Your task to perform on an android device: Go to Yahoo.com Image 0: 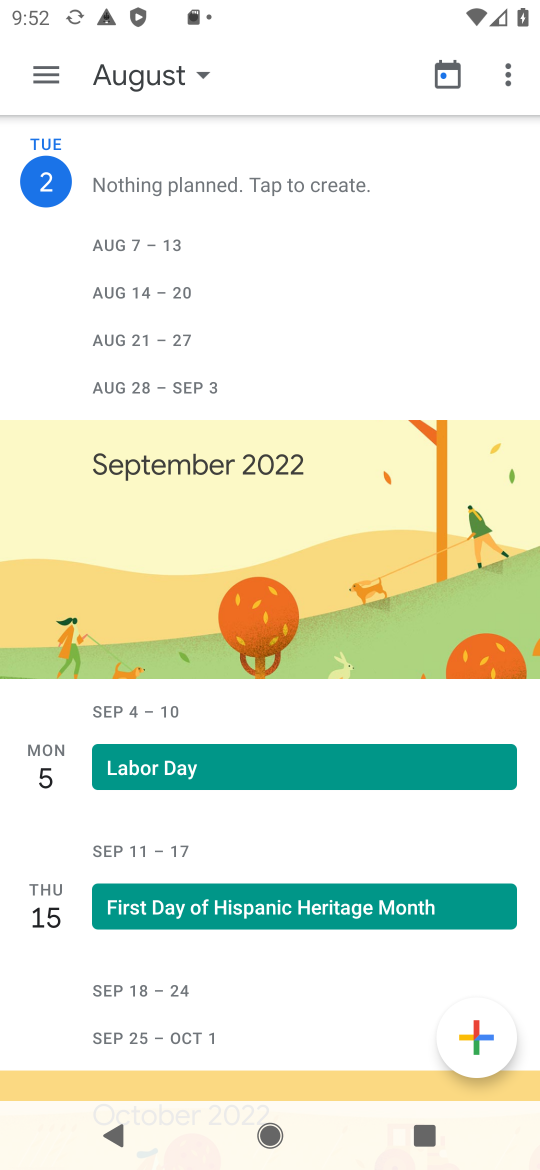
Step 0: press home button
Your task to perform on an android device: Go to Yahoo.com Image 1: 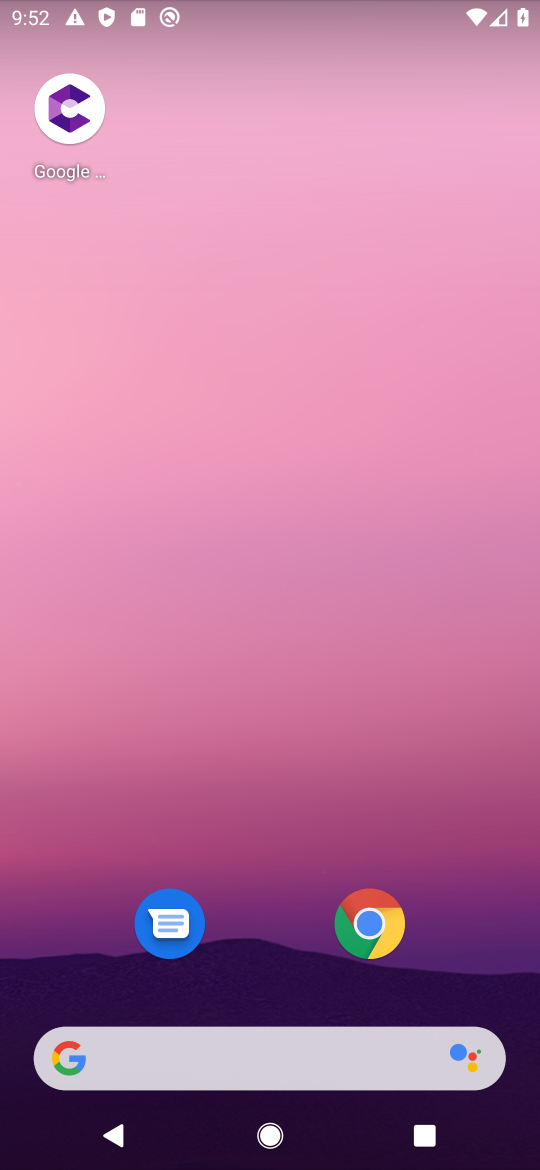
Step 1: click (69, 1056)
Your task to perform on an android device: Go to Yahoo.com Image 2: 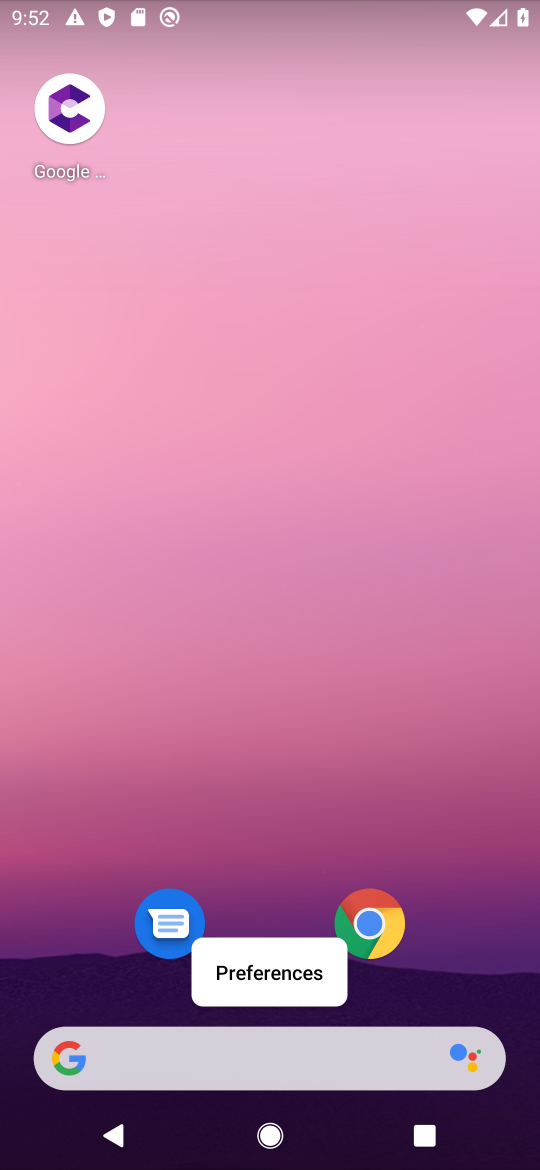
Step 2: click (69, 1054)
Your task to perform on an android device: Go to Yahoo.com Image 3: 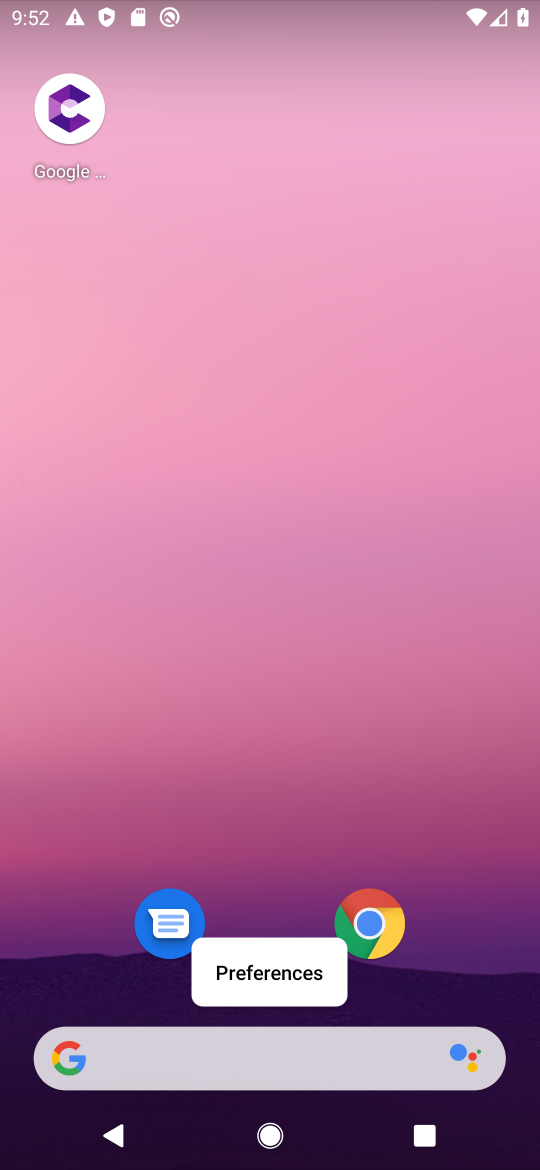
Step 3: click (67, 1049)
Your task to perform on an android device: Go to Yahoo.com Image 4: 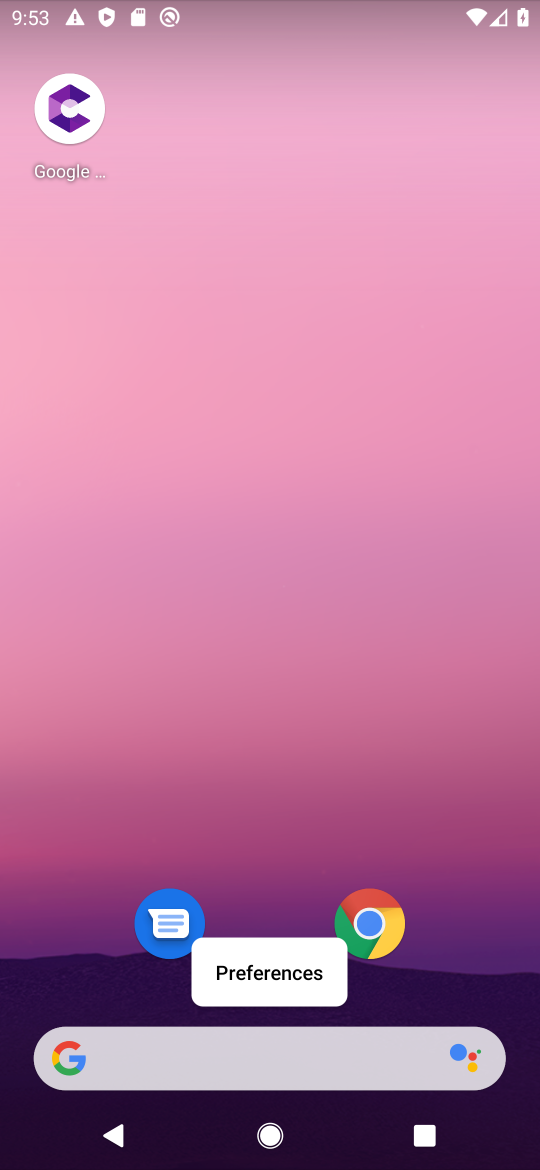
Step 4: click (71, 1056)
Your task to perform on an android device: Go to Yahoo.com Image 5: 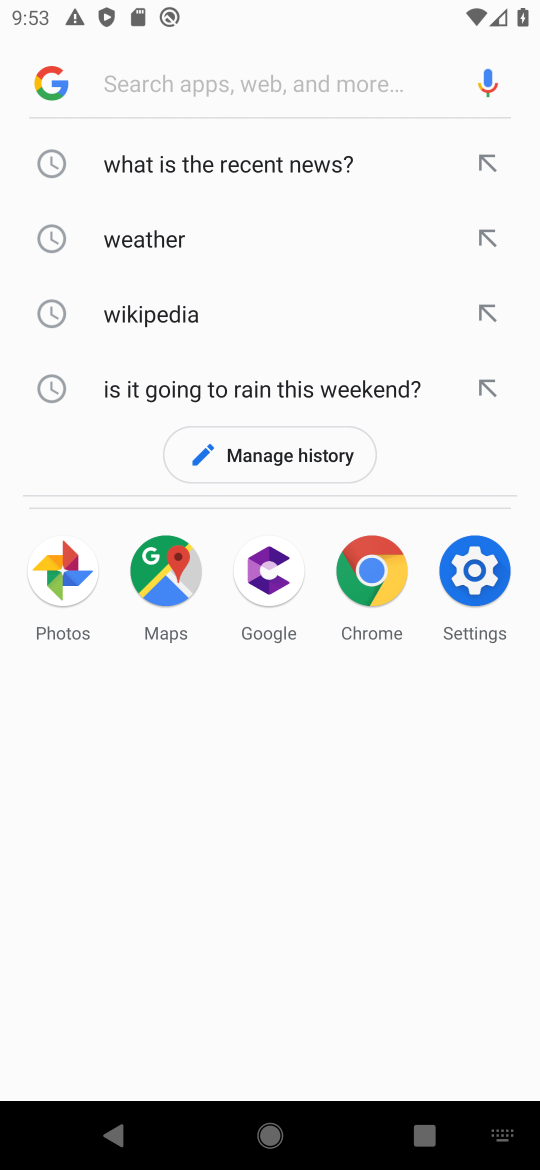
Step 5: type "Yahoo.com"
Your task to perform on an android device: Go to Yahoo.com Image 6: 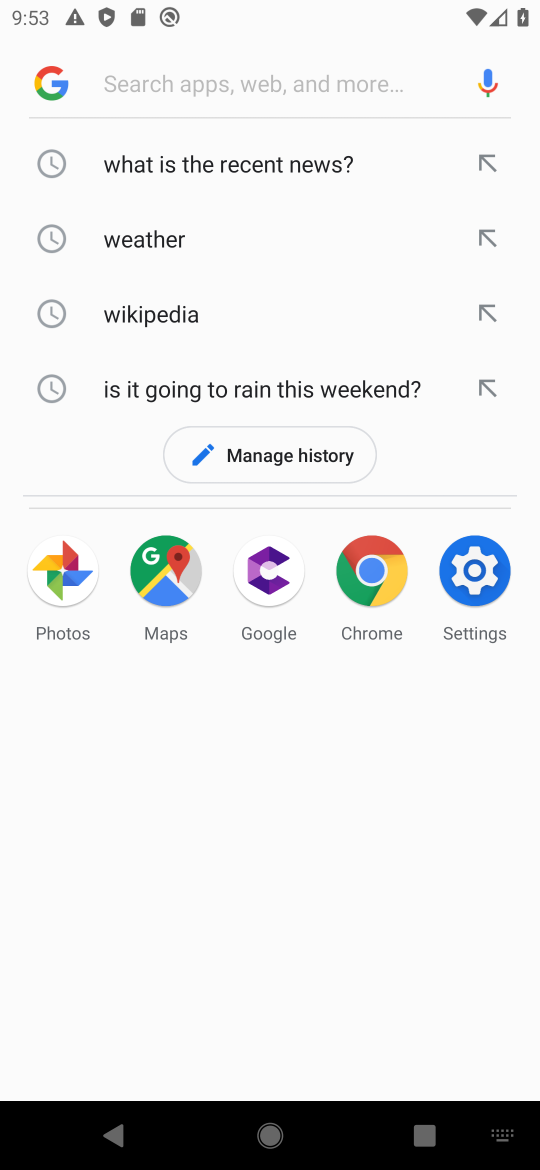
Step 6: click (193, 72)
Your task to perform on an android device: Go to Yahoo.com Image 7: 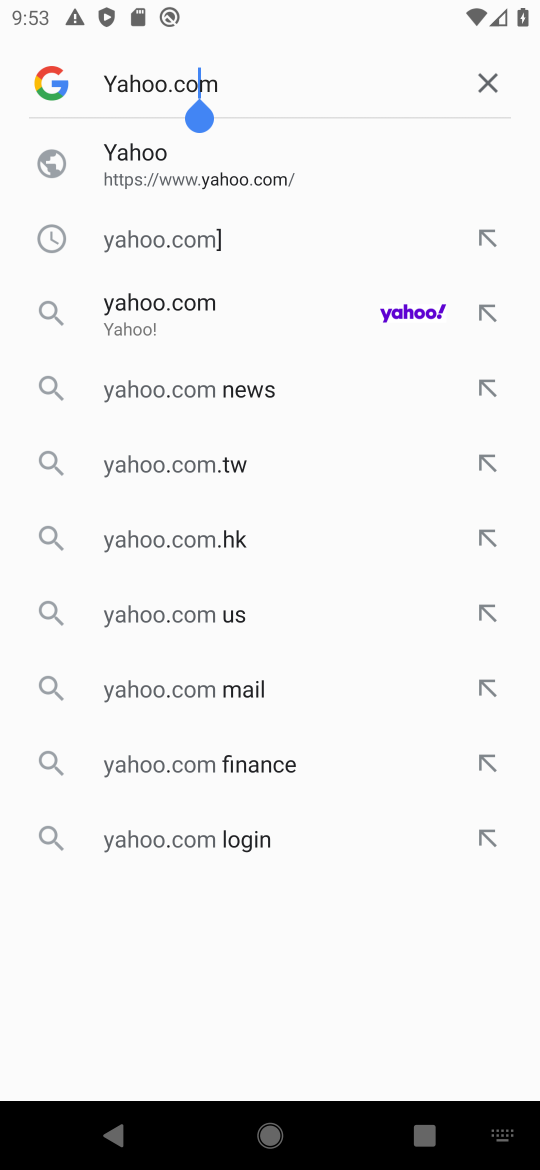
Step 7: click (129, 163)
Your task to perform on an android device: Go to Yahoo.com Image 8: 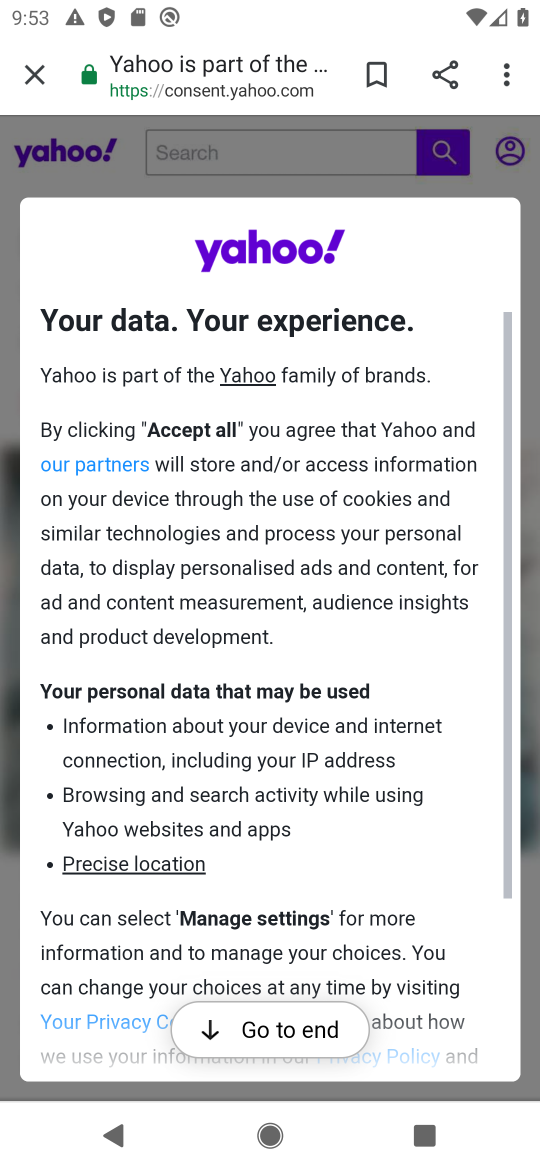
Step 8: drag from (417, 883) to (369, 368)
Your task to perform on an android device: Go to Yahoo.com Image 9: 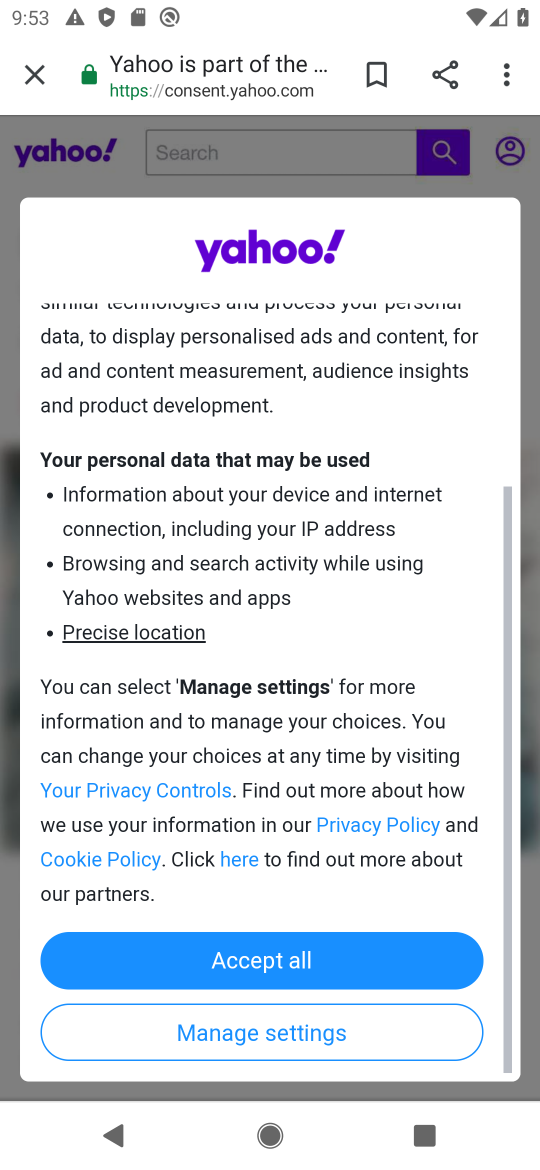
Step 9: click (274, 961)
Your task to perform on an android device: Go to Yahoo.com Image 10: 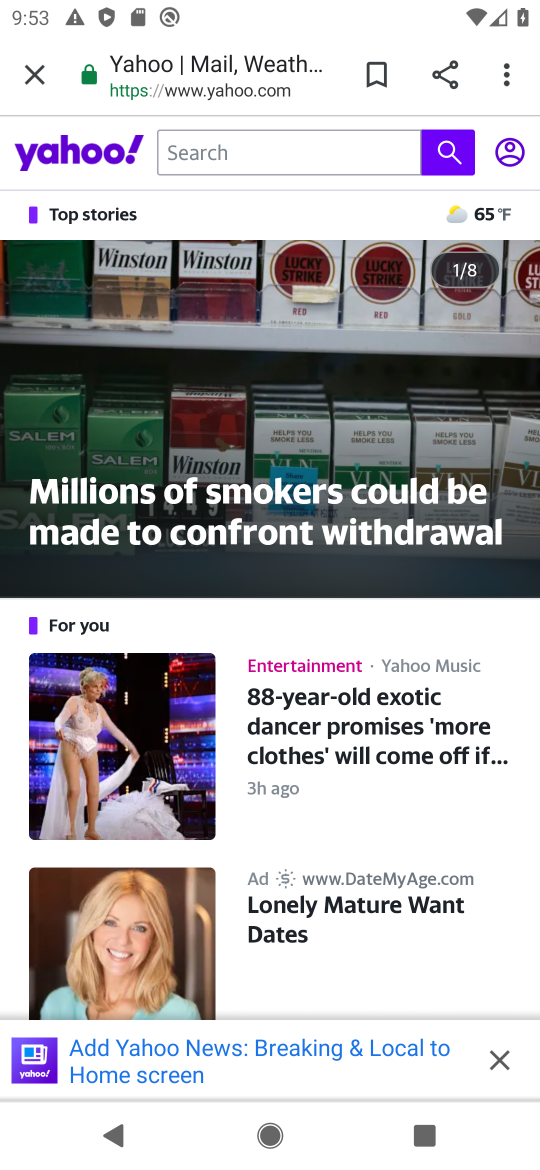
Step 10: task complete